Your task to perform on an android device: Search for pizza restaurants on Maps Image 0: 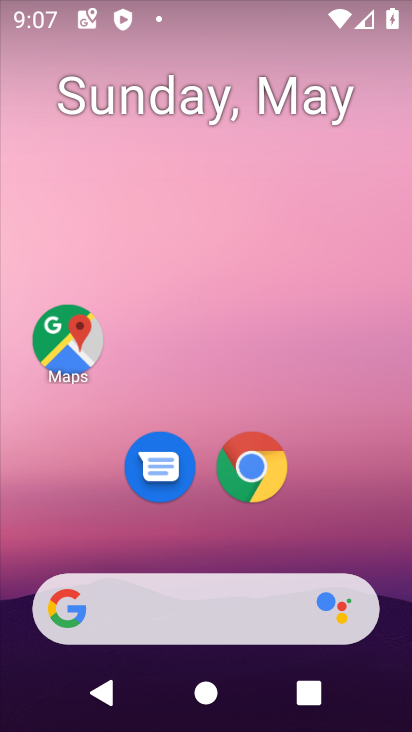
Step 0: click (55, 358)
Your task to perform on an android device: Search for pizza restaurants on Maps Image 1: 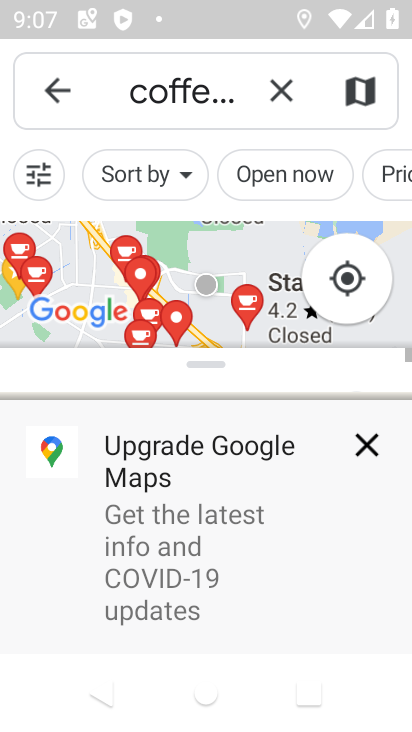
Step 1: click (287, 83)
Your task to perform on an android device: Search for pizza restaurants on Maps Image 2: 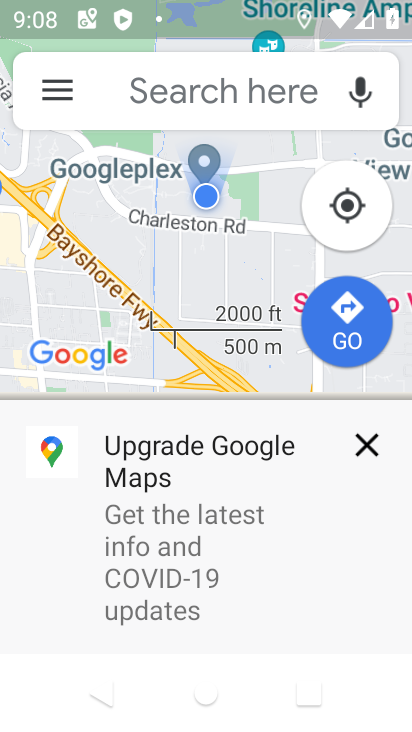
Step 2: click (221, 88)
Your task to perform on an android device: Search for pizza restaurants on Maps Image 3: 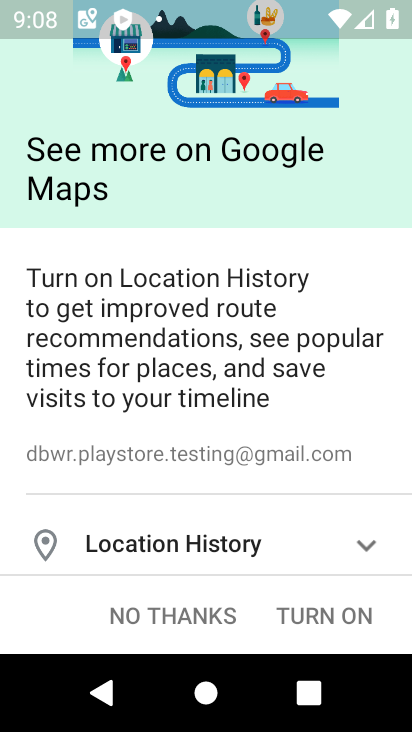
Step 3: click (146, 629)
Your task to perform on an android device: Search for pizza restaurants on Maps Image 4: 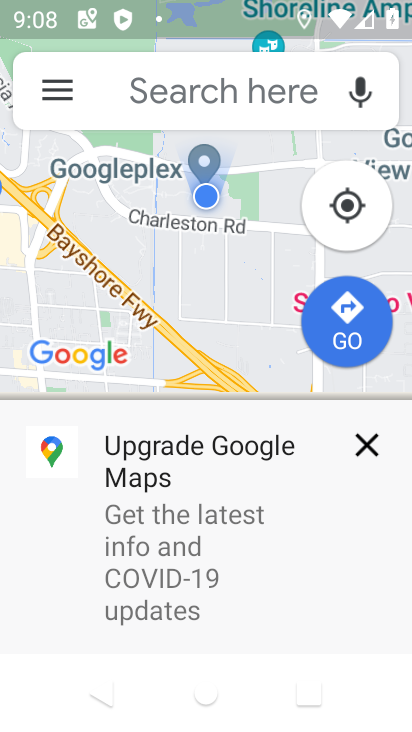
Step 4: click (182, 101)
Your task to perform on an android device: Search for pizza restaurants on Maps Image 5: 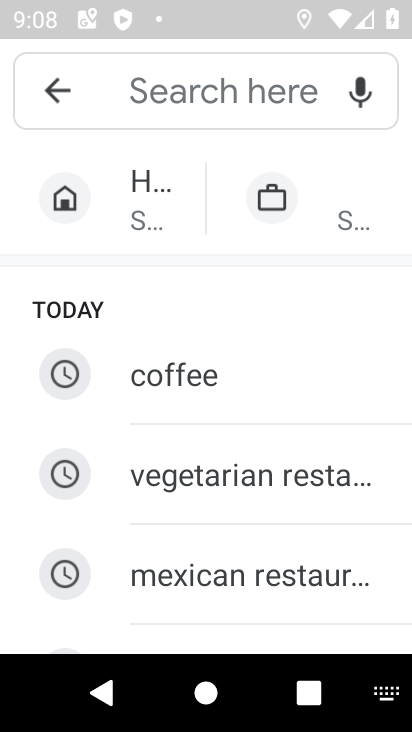
Step 5: type "pizza restaurants"
Your task to perform on an android device: Search for pizza restaurants on Maps Image 6: 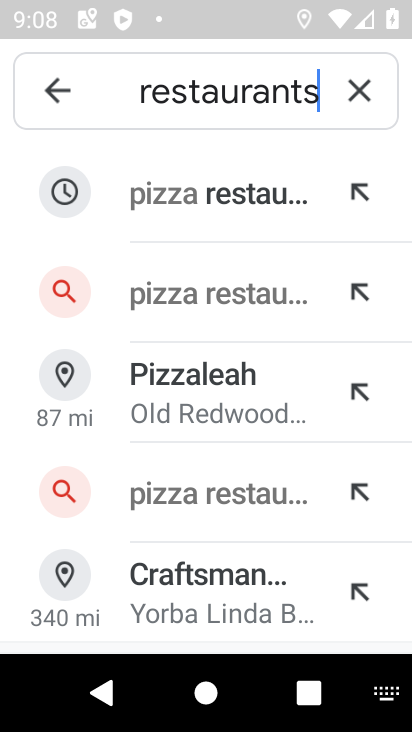
Step 6: click (186, 211)
Your task to perform on an android device: Search for pizza restaurants on Maps Image 7: 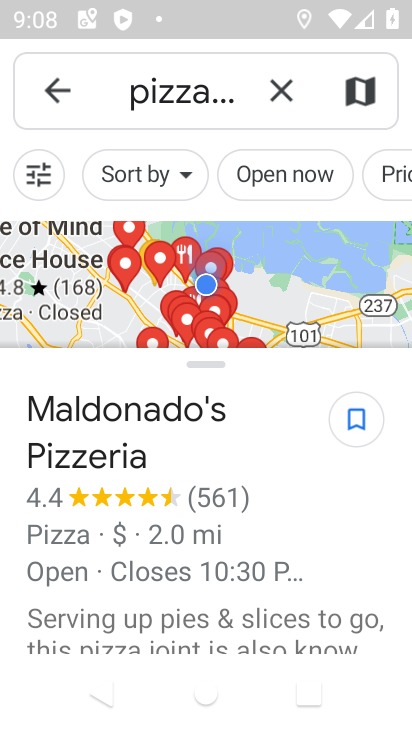
Step 7: task complete